Your task to perform on an android device: Open Google Chrome Image 0: 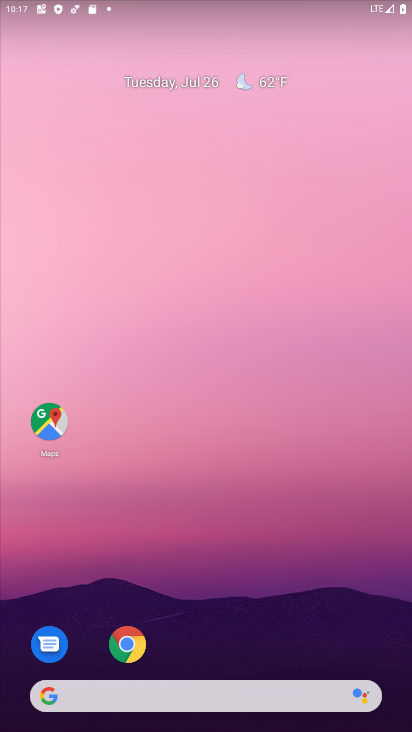
Step 0: click (130, 642)
Your task to perform on an android device: Open Google Chrome Image 1: 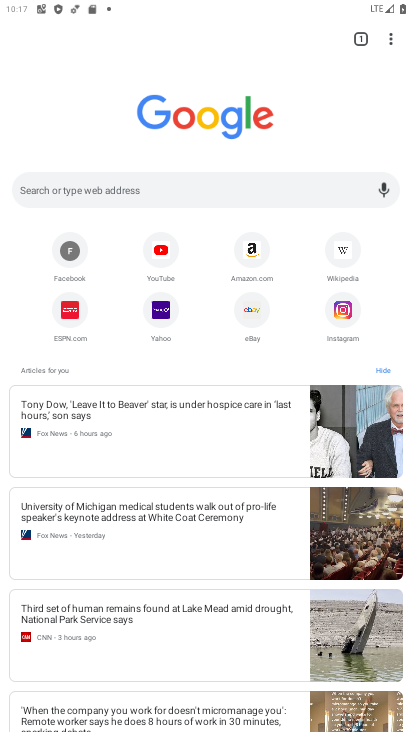
Step 1: task complete